Your task to perform on an android device: turn on bluetooth scan Image 0: 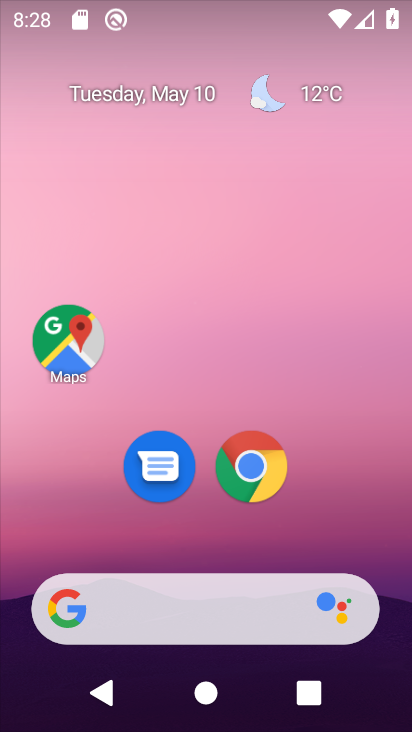
Step 0: drag from (224, 558) to (277, 10)
Your task to perform on an android device: turn on bluetooth scan Image 1: 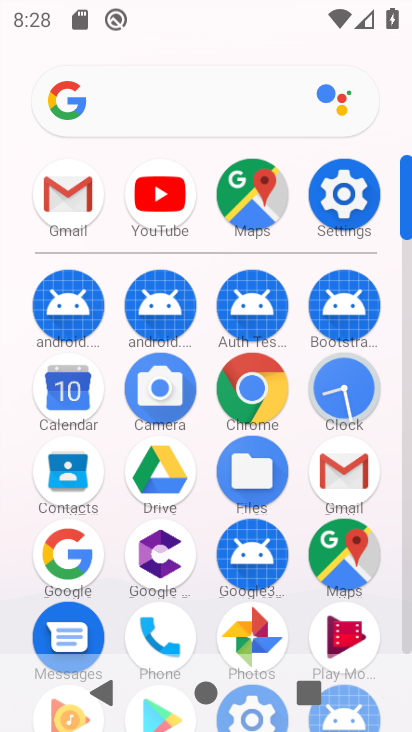
Step 1: click (335, 189)
Your task to perform on an android device: turn on bluetooth scan Image 2: 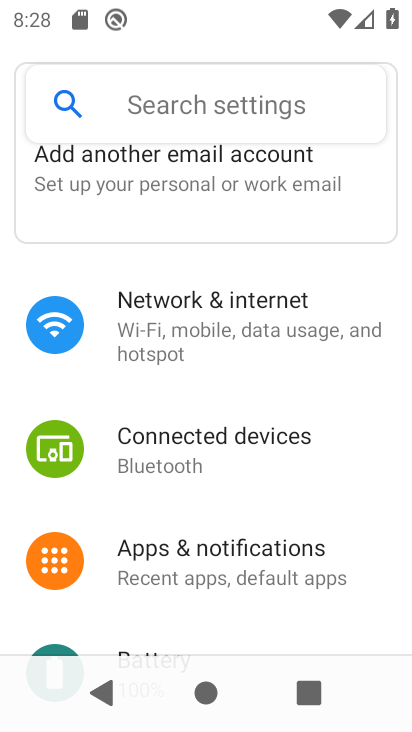
Step 2: drag from (170, 517) to (266, 102)
Your task to perform on an android device: turn on bluetooth scan Image 3: 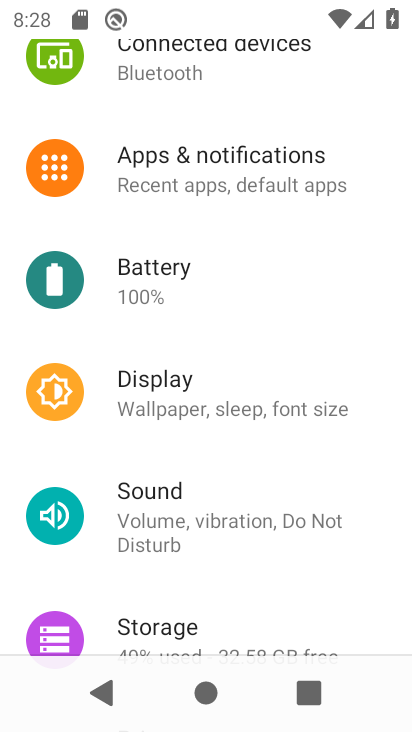
Step 3: drag from (198, 613) to (238, 284)
Your task to perform on an android device: turn on bluetooth scan Image 4: 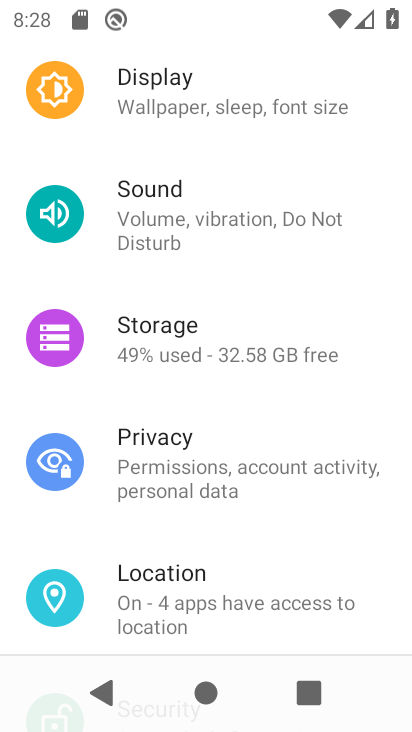
Step 4: click (163, 575)
Your task to perform on an android device: turn on bluetooth scan Image 5: 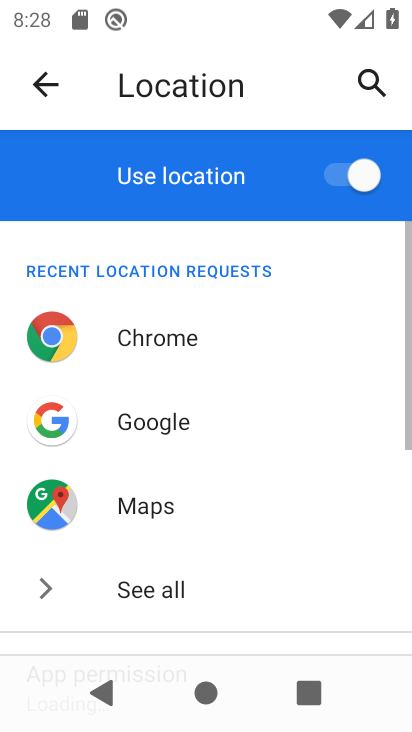
Step 5: drag from (181, 565) to (248, 266)
Your task to perform on an android device: turn on bluetooth scan Image 6: 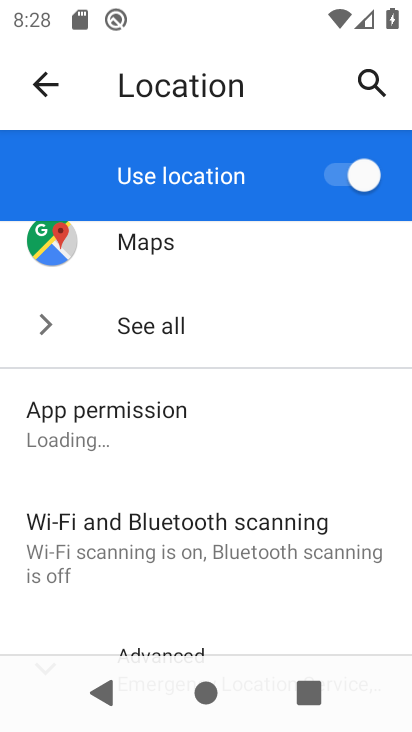
Step 6: drag from (188, 568) to (250, 206)
Your task to perform on an android device: turn on bluetooth scan Image 7: 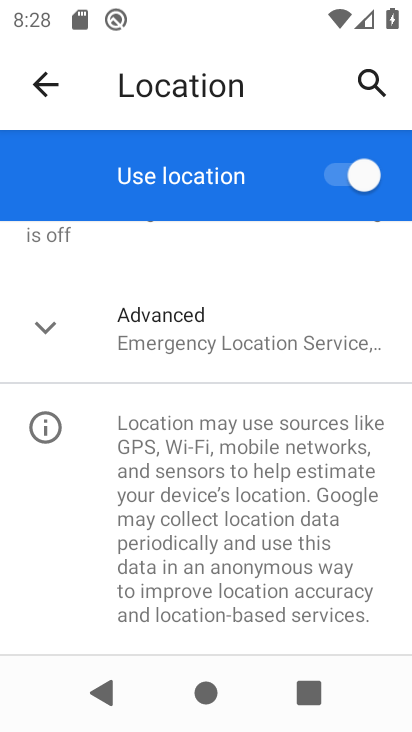
Step 7: click (134, 339)
Your task to perform on an android device: turn on bluetooth scan Image 8: 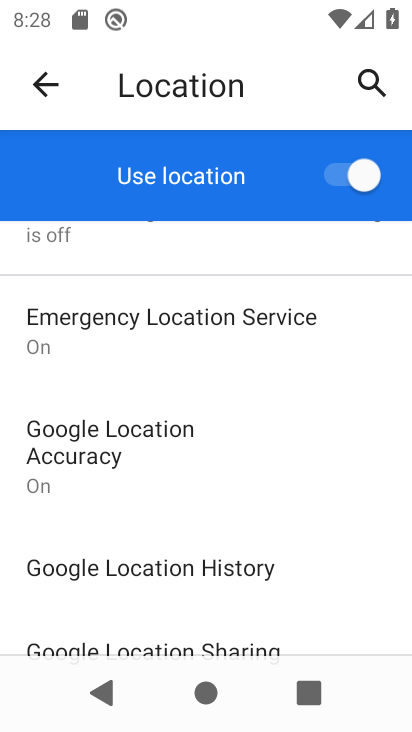
Step 8: drag from (190, 595) to (187, 723)
Your task to perform on an android device: turn on bluetooth scan Image 9: 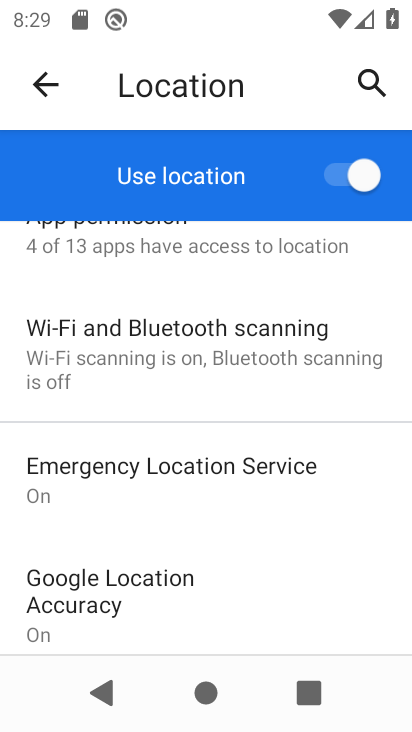
Step 9: click (206, 365)
Your task to perform on an android device: turn on bluetooth scan Image 10: 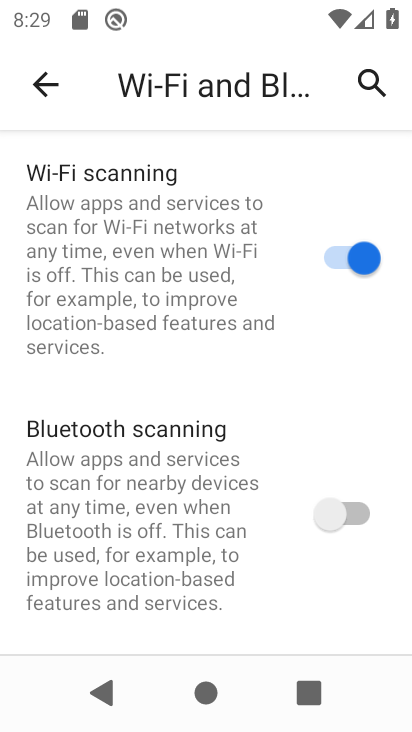
Step 10: click (345, 514)
Your task to perform on an android device: turn on bluetooth scan Image 11: 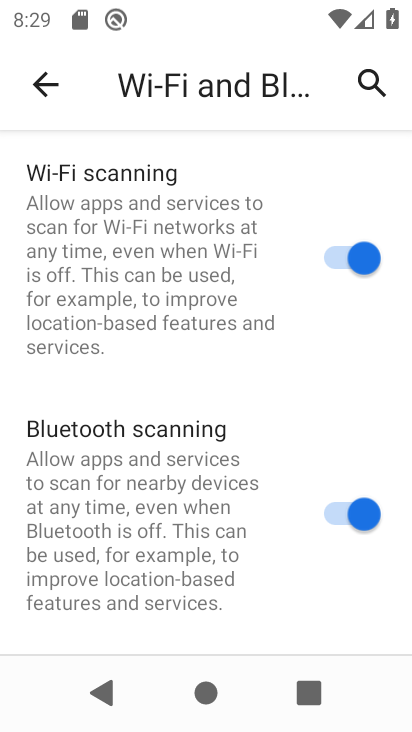
Step 11: task complete